Your task to perform on an android device: toggle pop-ups in chrome Image 0: 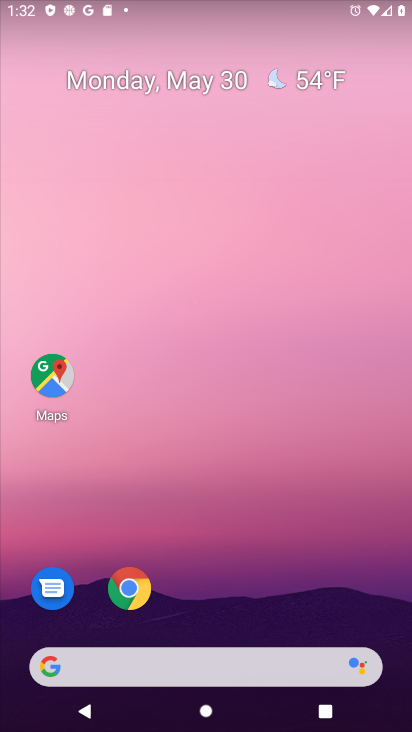
Step 0: click (128, 587)
Your task to perform on an android device: toggle pop-ups in chrome Image 1: 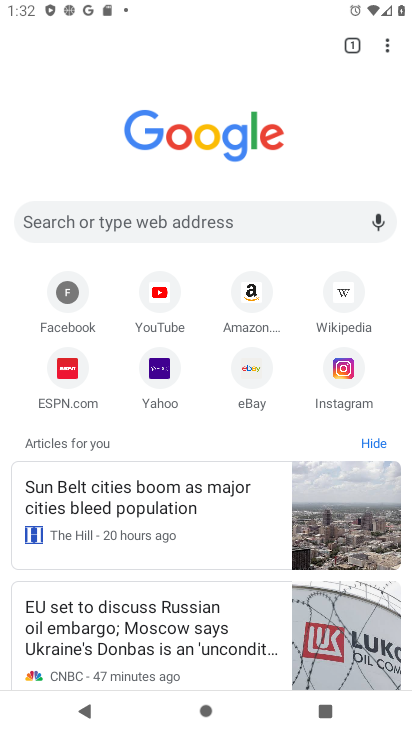
Step 1: click (390, 45)
Your task to perform on an android device: toggle pop-ups in chrome Image 2: 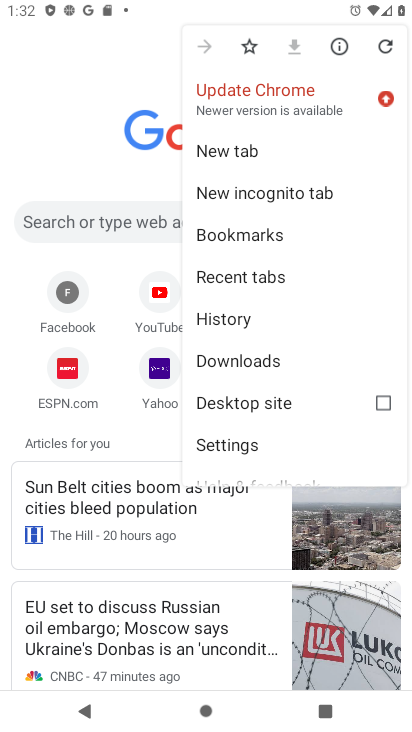
Step 2: click (236, 443)
Your task to perform on an android device: toggle pop-ups in chrome Image 3: 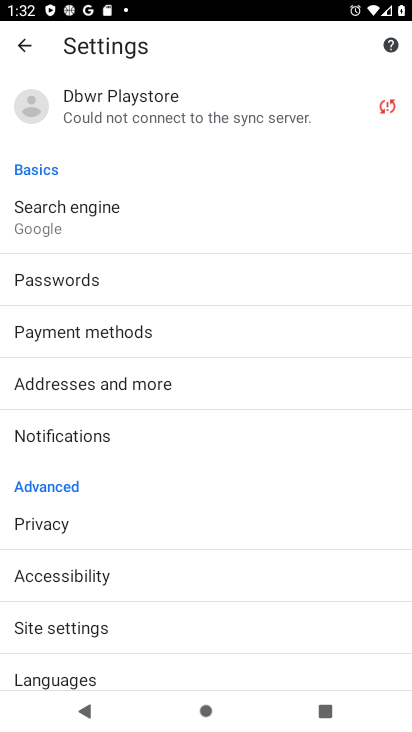
Step 3: click (88, 634)
Your task to perform on an android device: toggle pop-ups in chrome Image 4: 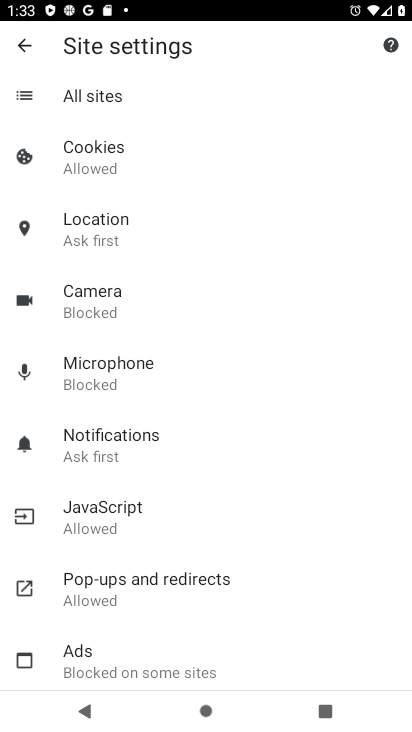
Step 4: drag from (123, 550) to (134, 504)
Your task to perform on an android device: toggle pop-ups in chrome Image 5: 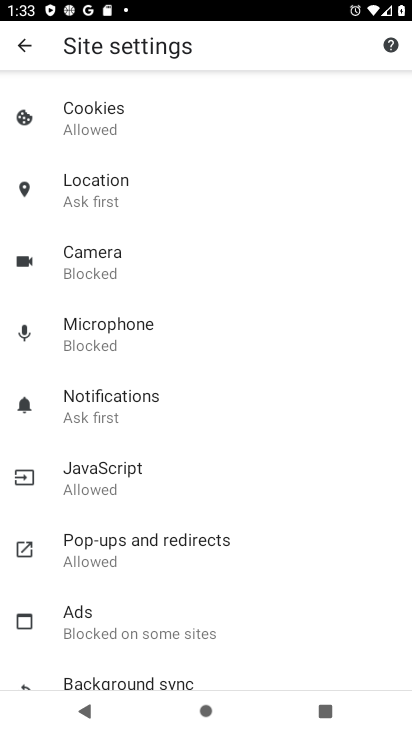
Step 5: click (146, 548)
Your task to perform on an android device: toggle pop-ups in chrome Image 6: 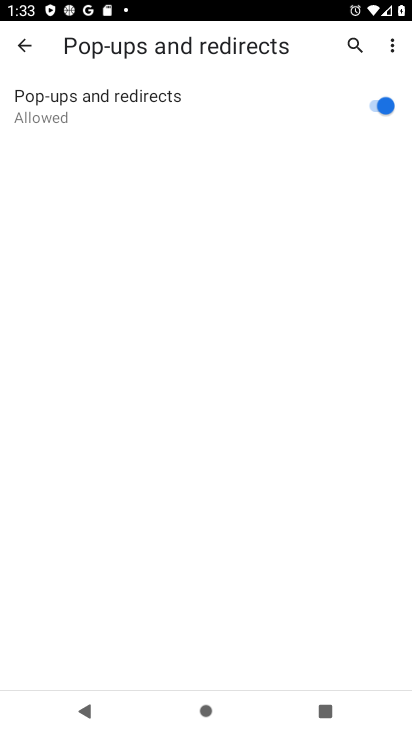
Step 6: click (367, 108)
Your task to perform on an android device: toggle pop-ups in chrome Image 7: 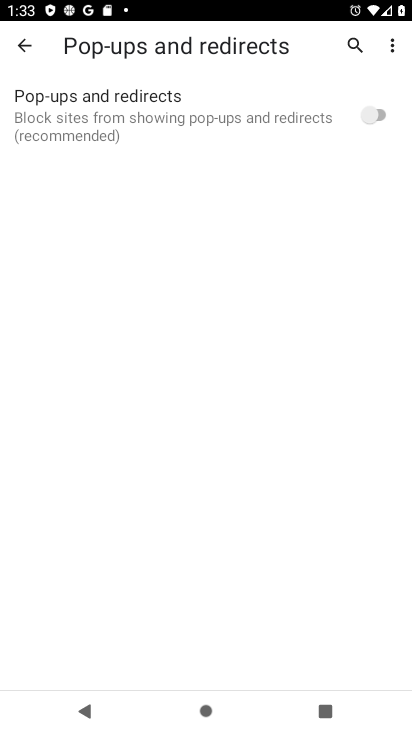
Step 7: task complete